Your task to perform on an android device: Open Google Chrome and open the bookmarks view Image 0: 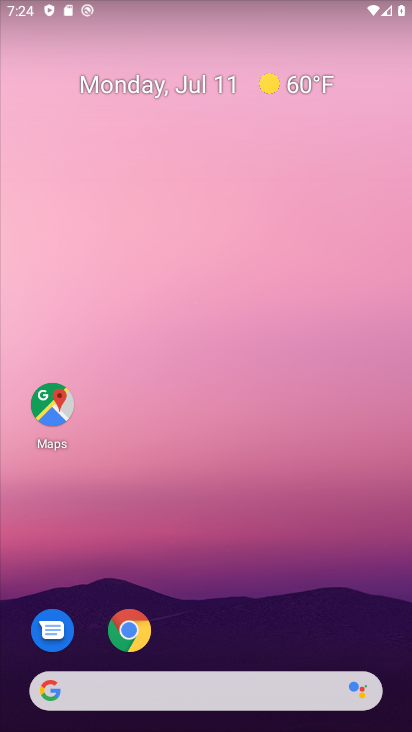
Step 0: click (132, 629)
Your task to perform on an android device: Open Google Chrome and open the bookmarks view Image 1: 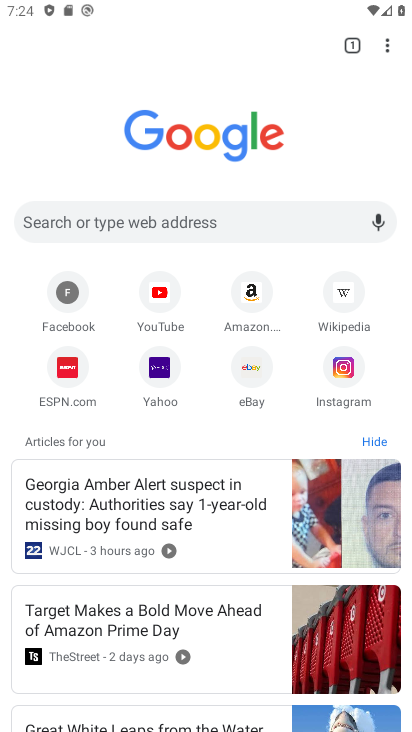
Step 1: click (388, 53)
Your task to perform on an android device: Open Google Chrome and open the bookmarks view Image 2: 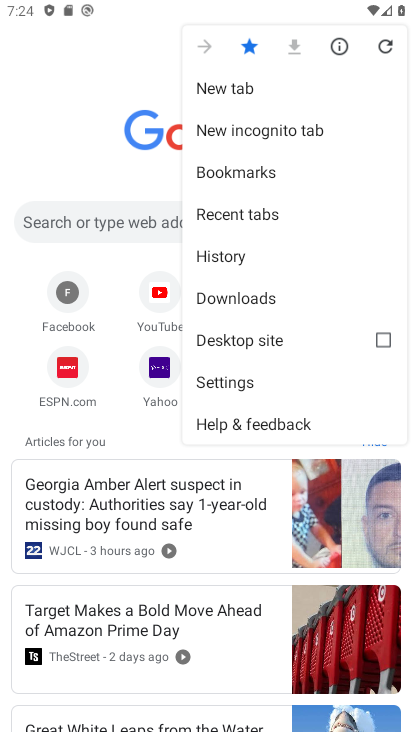
Step 2: click (242, 173)
Your task to perform on an android device: Open Google Chrome and open the bookmarks view Image 3: 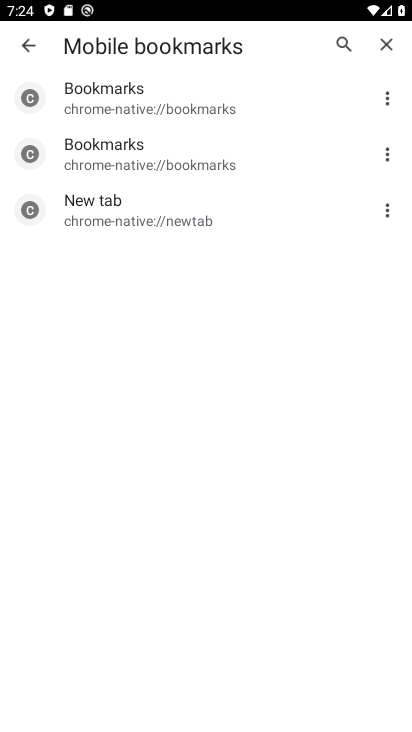
Step 3: task complete